Your task to perform on an android device: all mails in gmail Image 0: 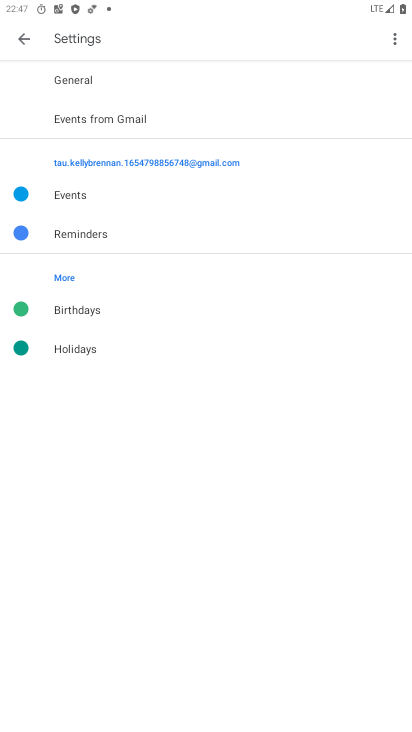
Step 0: press home button
Your task to perform on an android device: all mails in gmail Image 1: 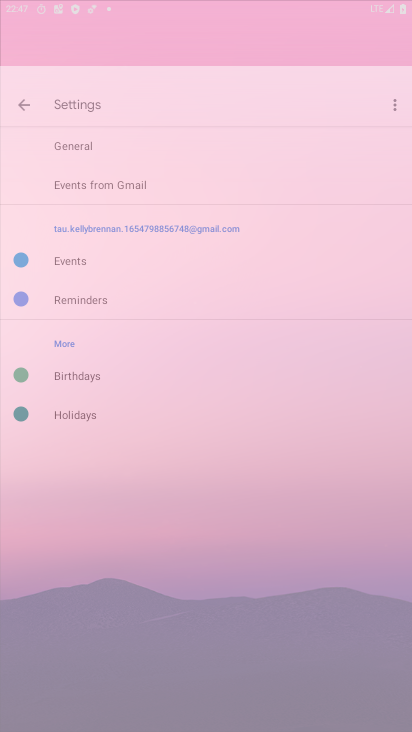
Step 1: drag from (299, 524) to (334, 137)
Your task to perform on an android device: all mails in gmail Image 2: 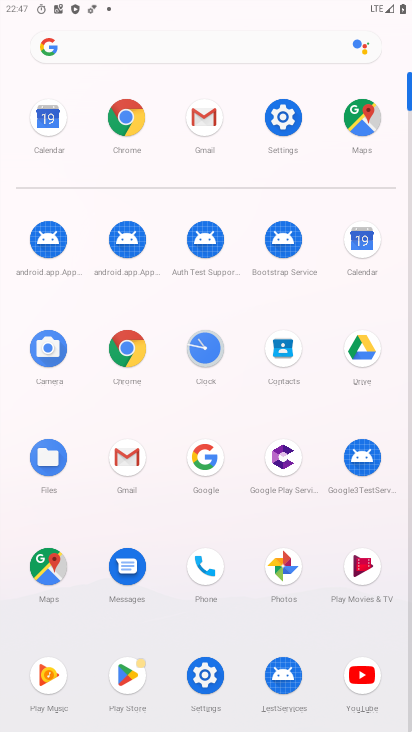
Step 2: click (191, 132)
Your task to perform on an android device: all mails in gmail Image 3: 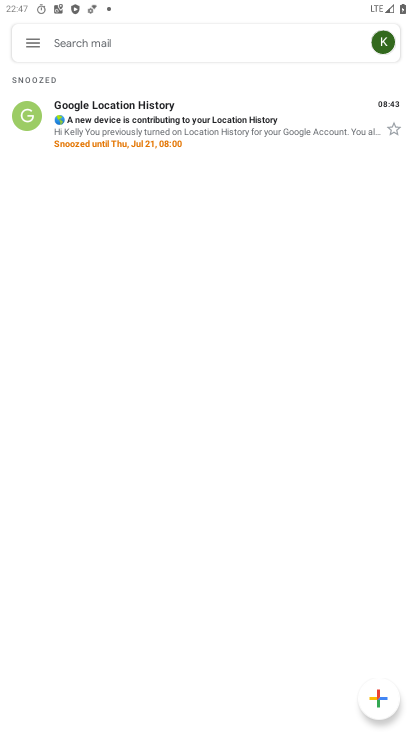
Step 3: click (24, 53)
Your task to perform on an android device: all mails in gmail Image 4: 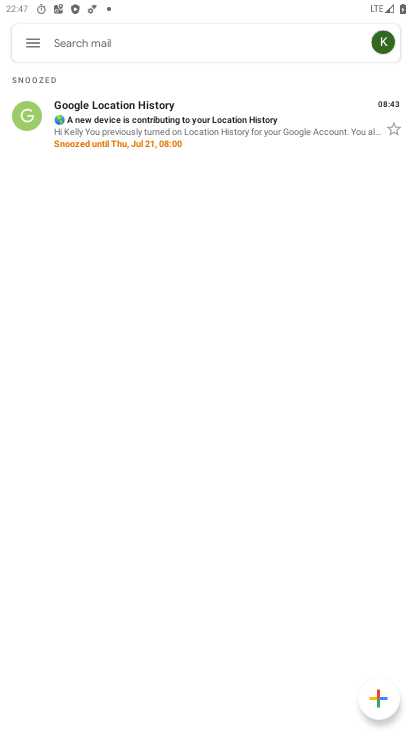
Step 4: click (26, 45)
Your task to perform on an android device: all mails in gmail Image 5: 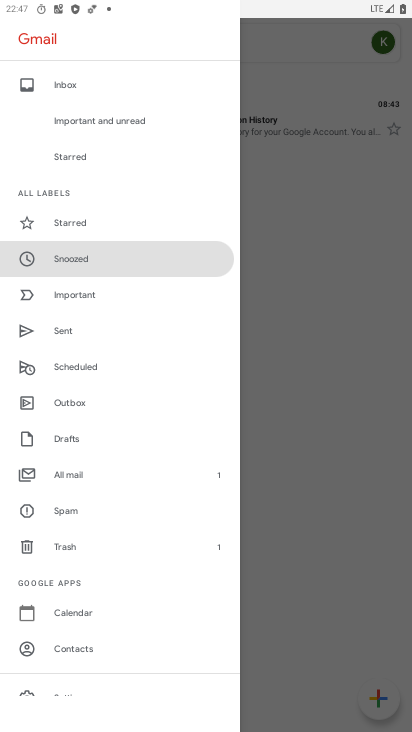
Step 5: click (31, 466)
Your task to perform on an android device: all mails in gmail Image 6: 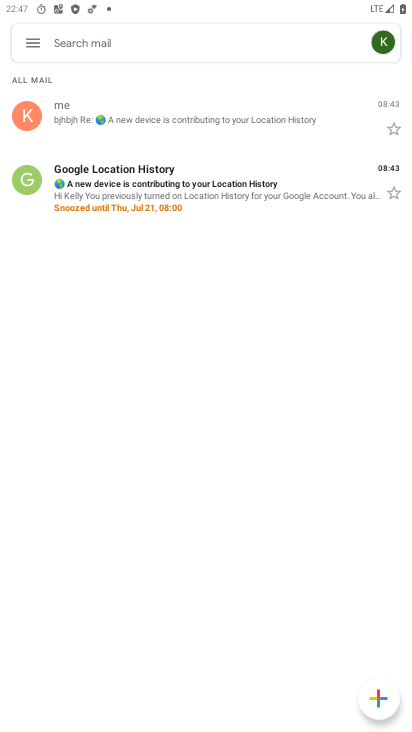
Step 6: task complete